Your task to perform on an android device: turn smart compose on in the gmail app Image 0: 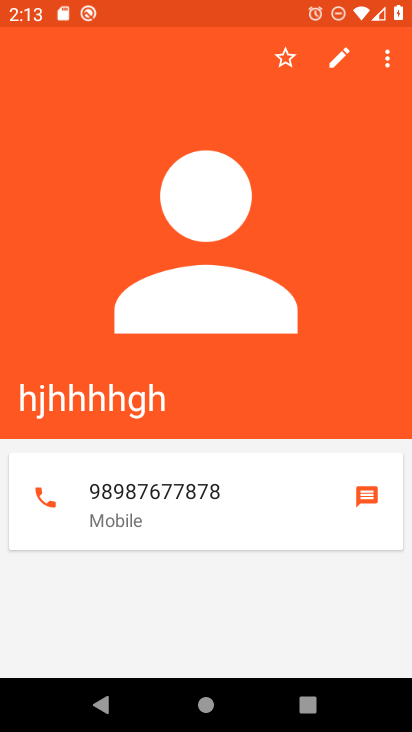
Step 0: press home button
Your task to perform on an android device: turn smart compose on in the gmail app Image 1: 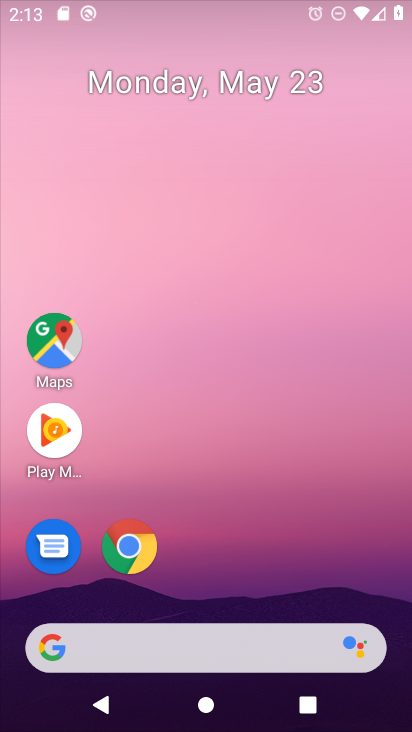
Step 1: drag from (231, 693) to (173, 60)
Your task to perform on an android device: turn smart compose on in the gmail app Image 2: 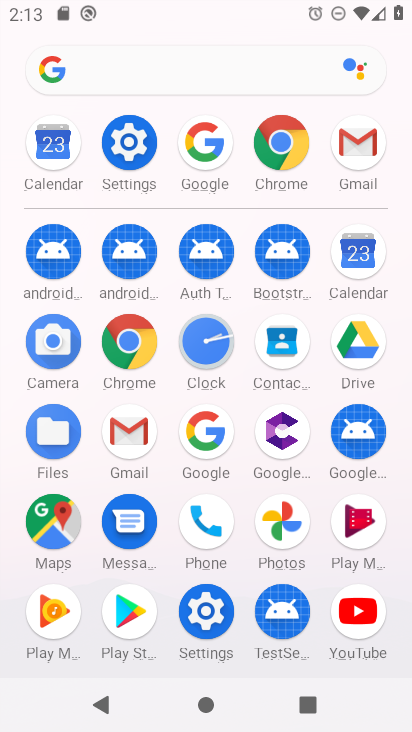
Step 2: click (361, 159)
Your task to perform on an android device: turn smart compose on in the gmail app Image 3: 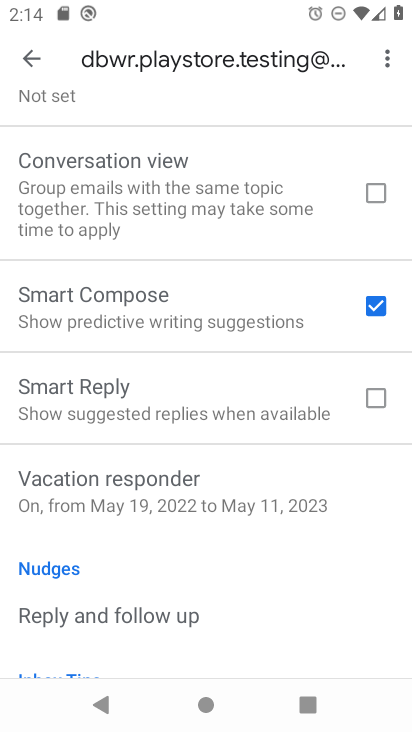
Step 3: task complete